Your task to perform on an android device: change the clock display to analog Image 0: 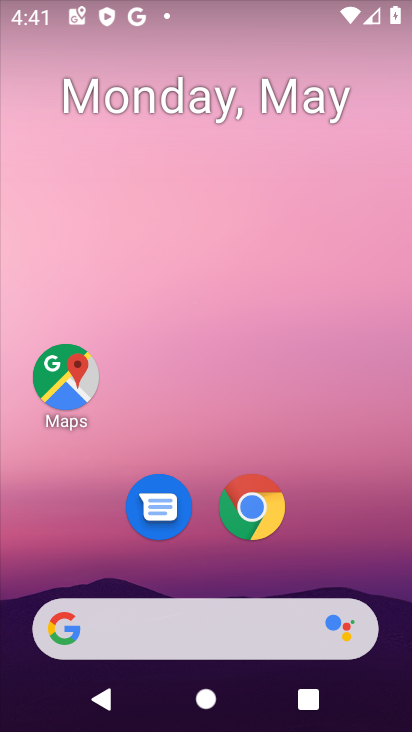
Step 0: drag from (347, 533) to (315, 91)
Your task to perform on an android device: change the clock display to analog Image 1: 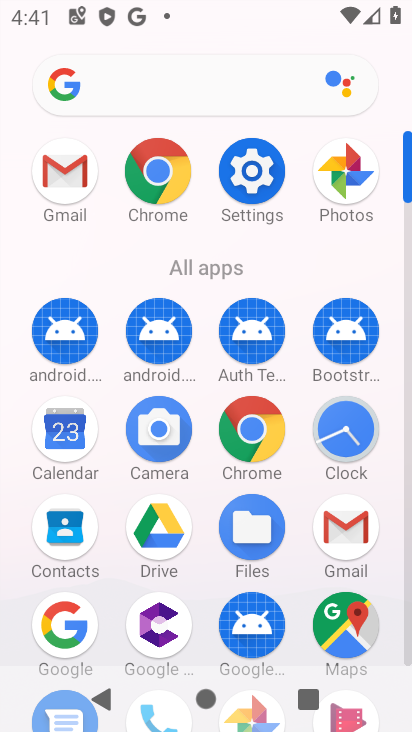
Step 1: click (360, 446)
Your task to perform on an android device: change the clock display to analog Image 2: 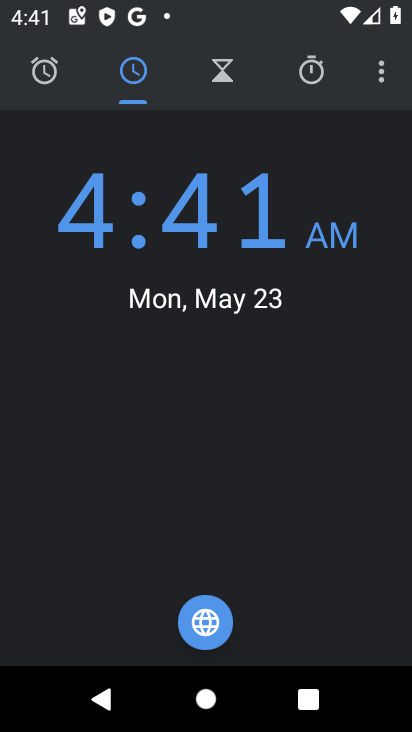
Step 2: click (384, 64)
Your task to perform on an android device: change the clock display to analog Image 3: 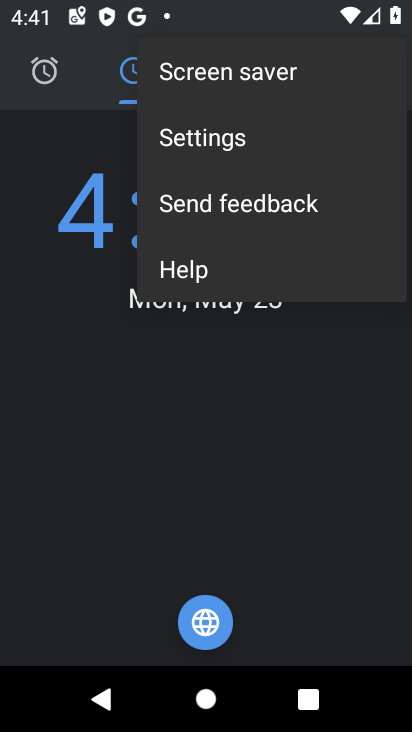
Step 3: click (199, 153)
Your task to perform on an android device: change the clock display to analog Image 4: 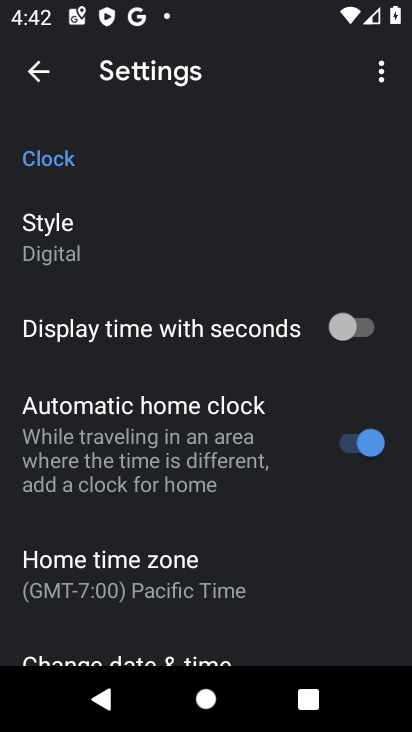
Step 4: click (72, 260)
Your task to perform on an android device: change the clock display to analog Image 5: 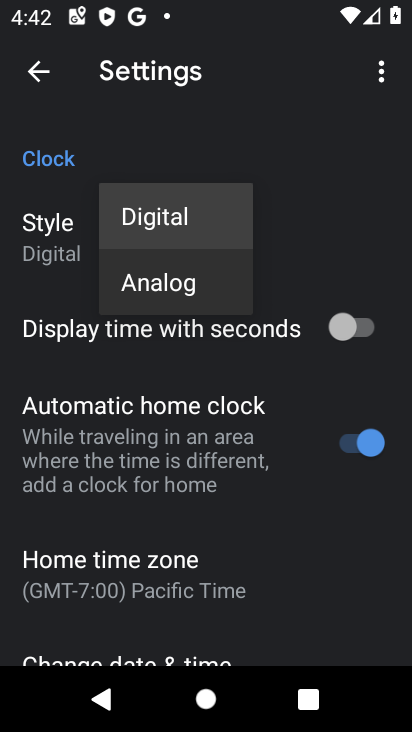
Step 5: click (140, 297)
Your task to perform on an android device: change the clock display to analog Image 6: 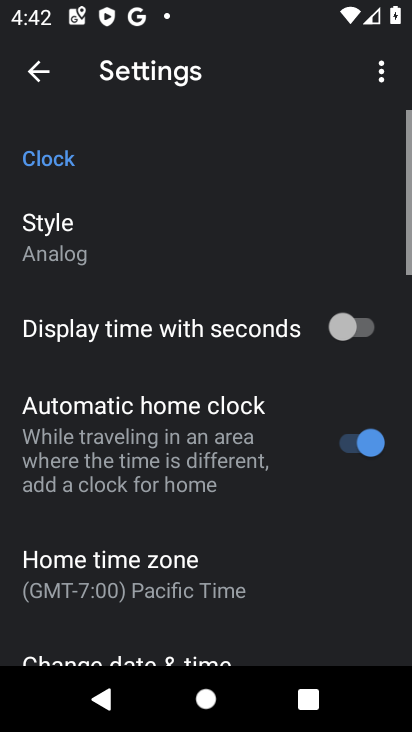
Step 6: task complete